Your task to perform on an android device: Open ESPN.com Image 0: 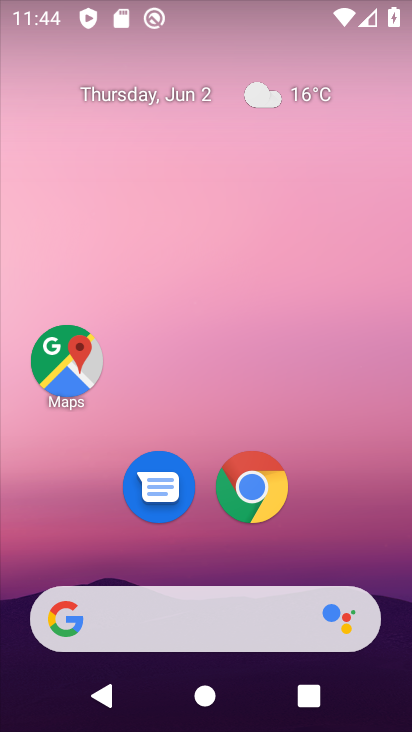
Step 0: click (247, 487)
Your task to perform on an android device: Open ESPN.com Image 1: 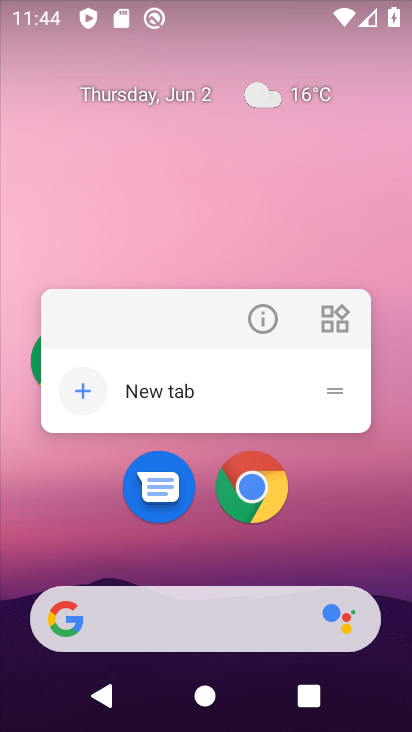
Step 1: click (253, 483)
Your task to perform on an android device: Open ESPN.com Image 2: 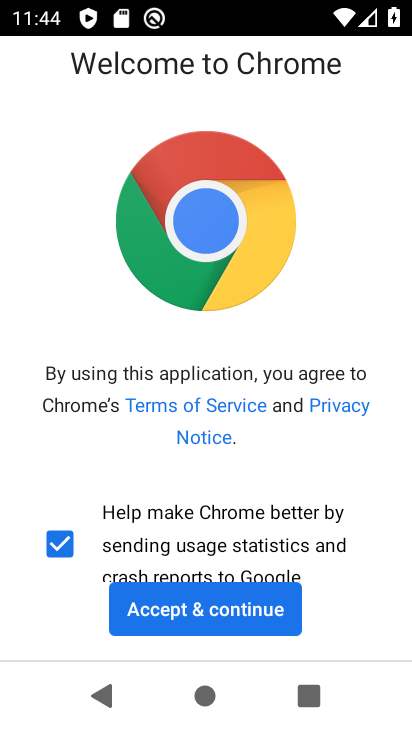
Step 2: click (171, 609)
Your task to perform on an android device: Open ESPN.com Image 3: 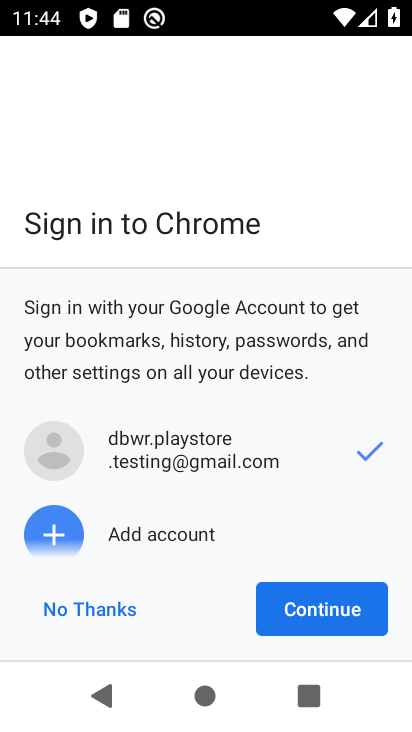
Step 3: click (299, 608)
Your task to perform on an android device: Open ESPN.com Image 4: 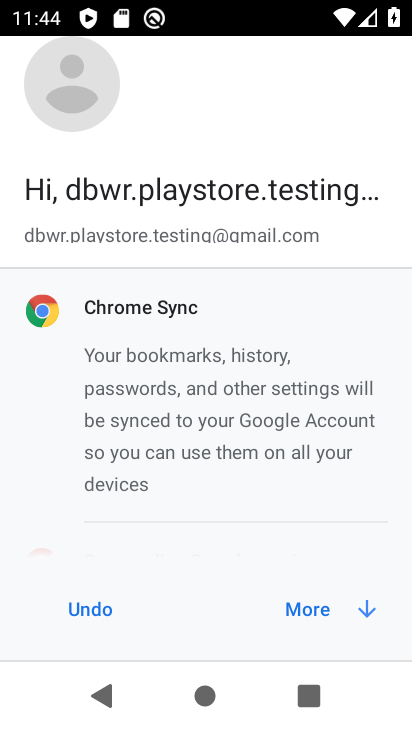
Step 4: click (359, 612)
Your task to perform on an android device: Open ESPN.com Image 5: 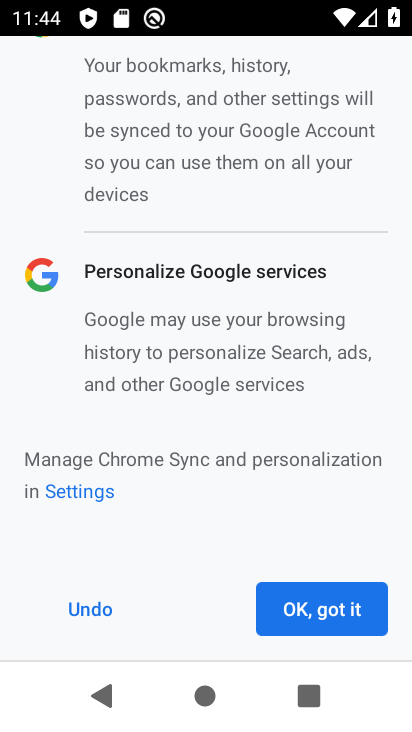
Step 5: click (326, 596)
Your task to perform on an android device: Open ESPN.com Image 6: 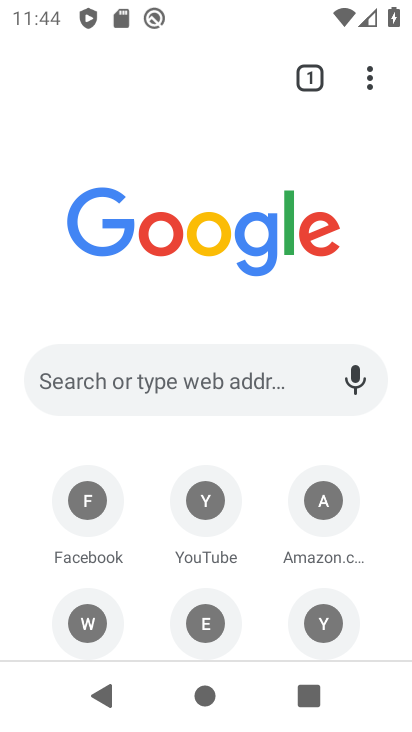
Step 6: drag from (178, 502) to (223, 209)
Your task to perform on an android device: Open ESPN.com Image 7: 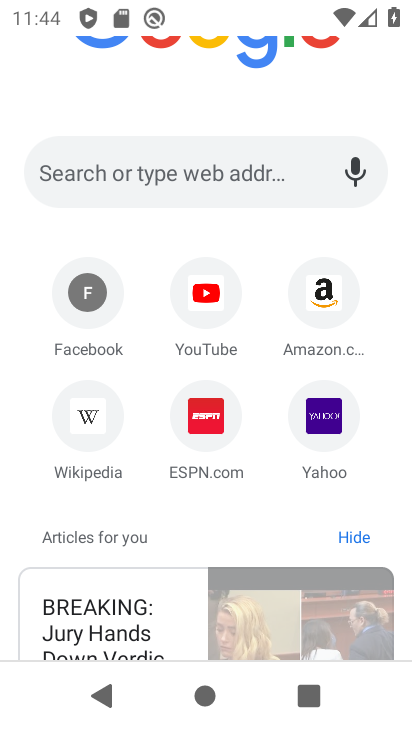
Step 7: click (198, 412)
Your task to perform on an android device: Open ESPN.com Image 8: 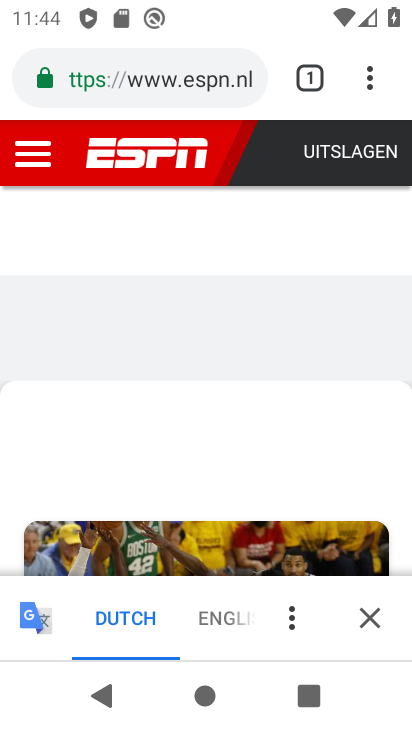
Step 8: task complete